Your task to perform on an android device: Open Google Maps Image 0: 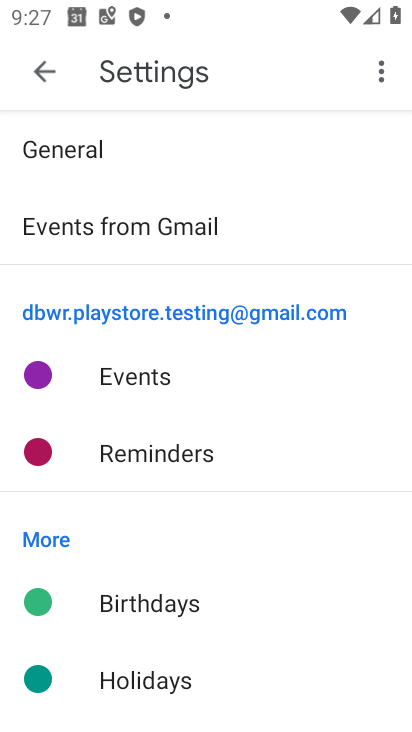
Step 0: press home button
Your task to perform on an android device: Open Google Maps Image 1: 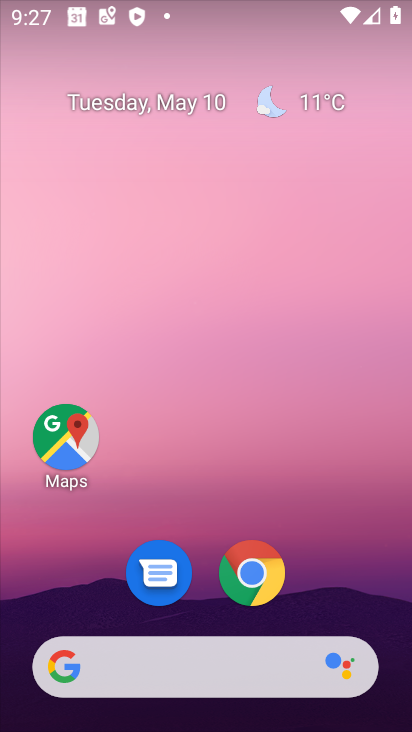
Step 1: click (61, 437)
Your task to perform on an android device: Open Google Maps Image 2: 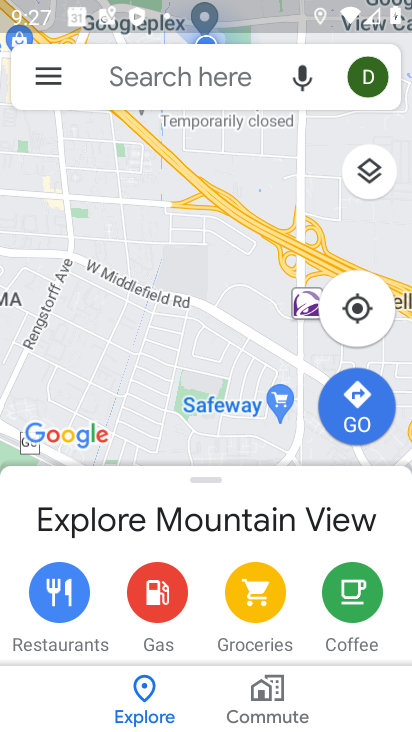
Step 2: task complete